Your task to perform on an android device: turn on improve location accuracy Image 0: 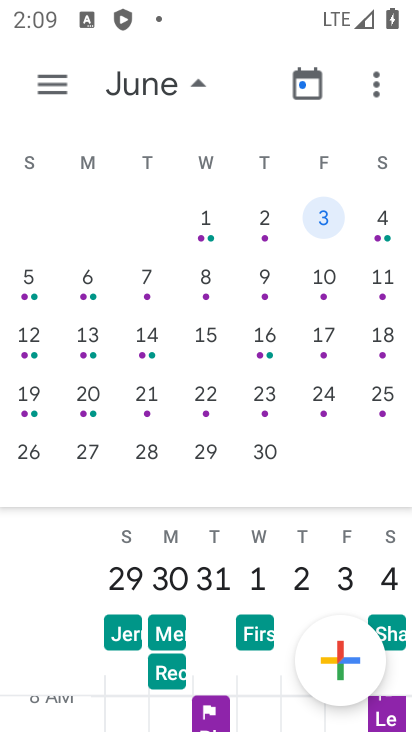
Step 0: press home button
Your task to perform on an android device: turn on improve location accuracy Image 1: 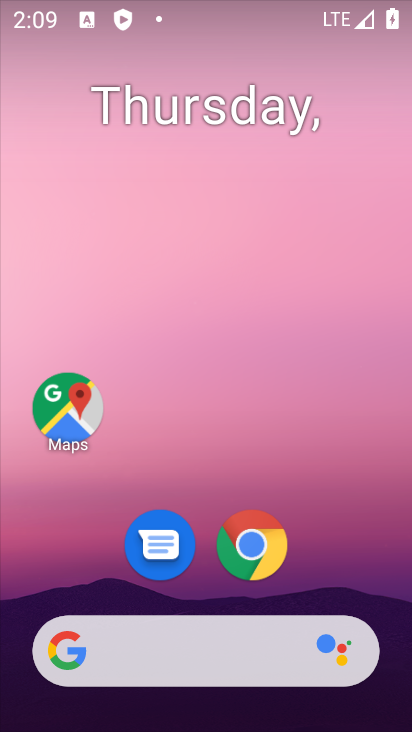
Step 1: drag from (263, 620) to (221, 5)
Your task to perform on an android device: turn on improve location accuracy Image 2: 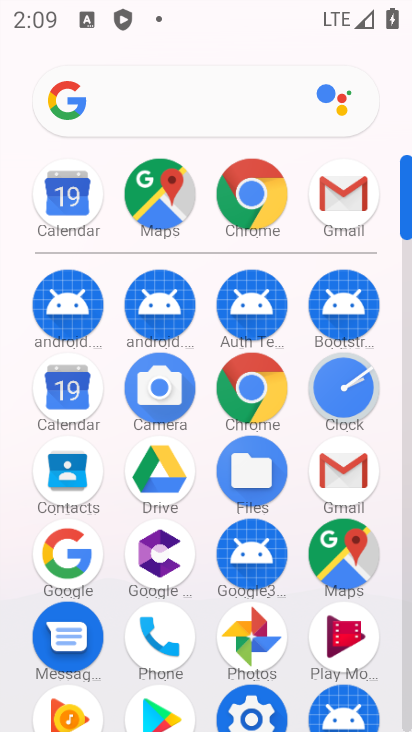
Step 2: click (269, 705)
Your task to perform on an android device: turn on improve location accuracy Image 3: 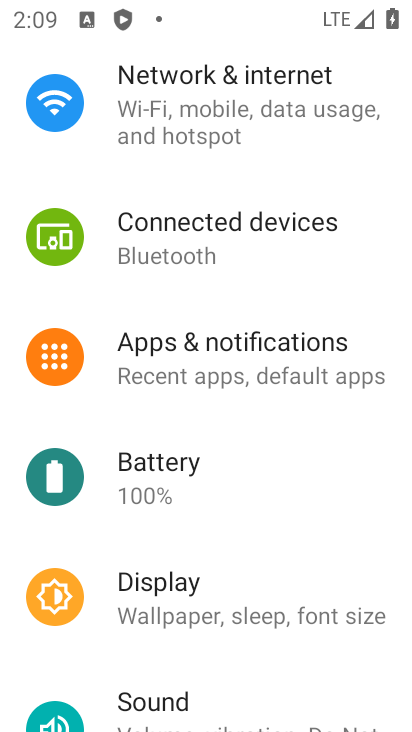
Step 3: drag from (232, 653) to (199, 149)
Your task to perform on an android device: turn on improve location accuracy Image 4: 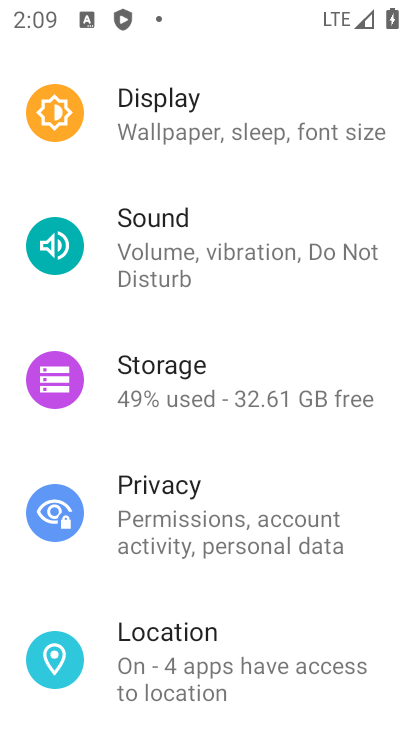
Step 4: click (227, 668)
Your task to perform on an android device: turn on improve location accuracy Image 5: 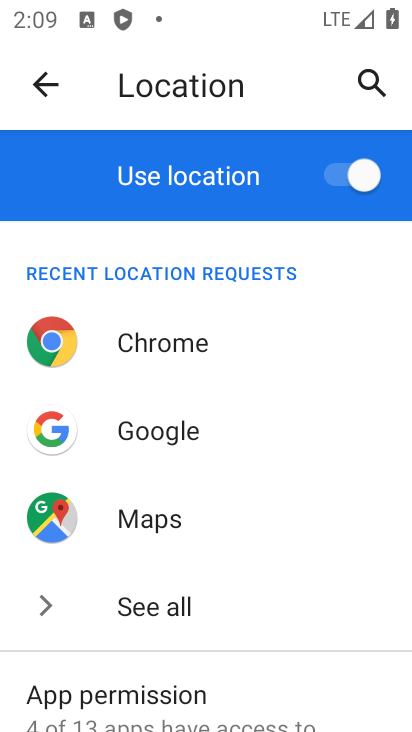
Step 5: drag from (210, 688) to (168, 148)
Your task to perform on an android device: turn on improve location accuracy Image 6: 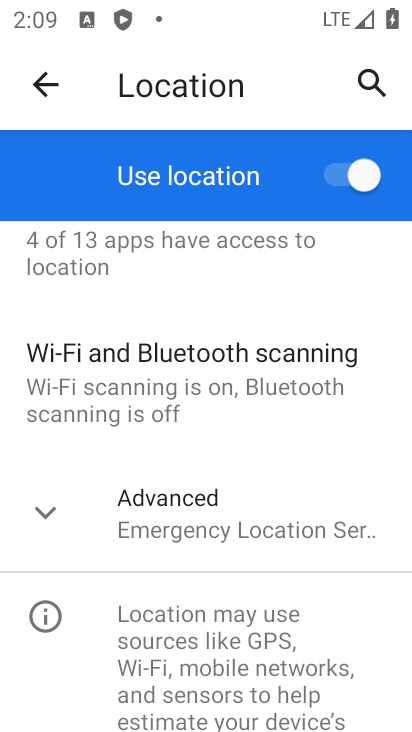
Step 6: click (218, 533)
Your task to perform on an android device: turn on improve location accuracy Image 7: 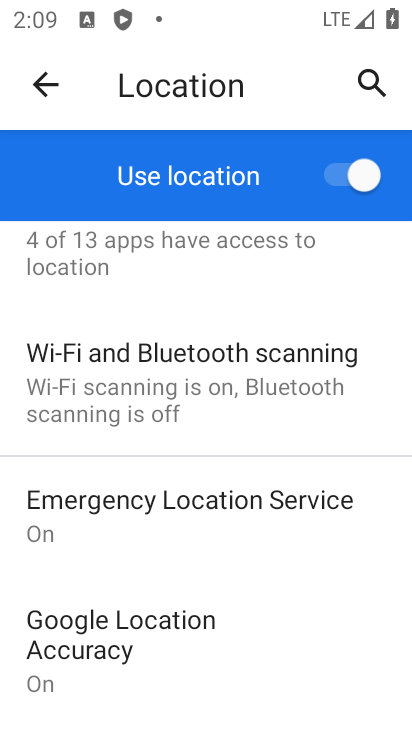
Step 7: task complete